Your task to perform on an android device: Open Wikipedia Image 0: 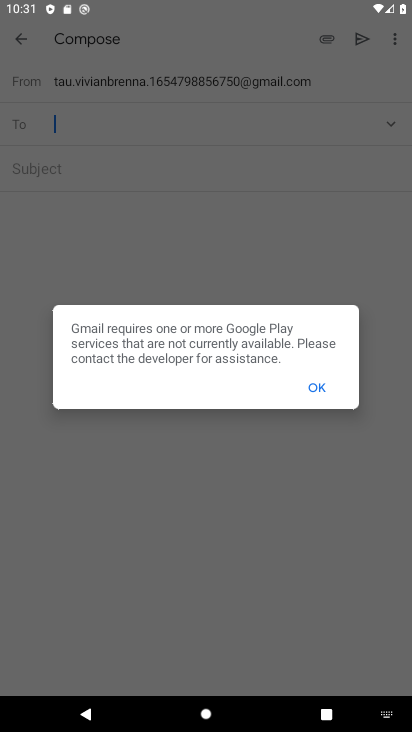
Step 0: press home button
Your task to perform on an android device: Open Wikipedia Image 1: 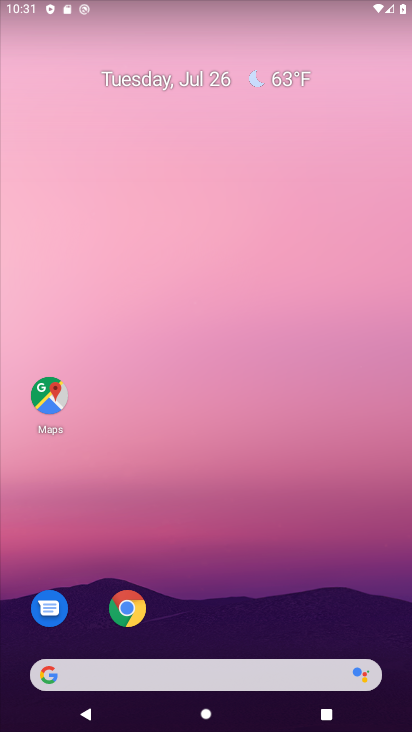
Step 1: click (54, 680)
Your task to perform on an android device: Open Wikipedia Image 2: 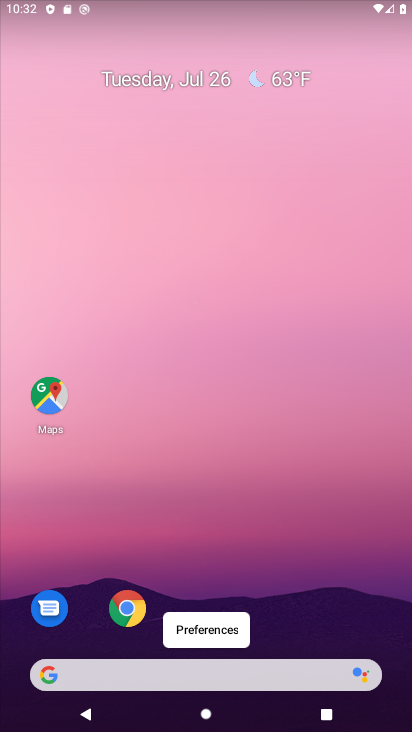
Step 2: click (53, 669)
Your task to perform on an android device: Open Wikipedia Image 3: 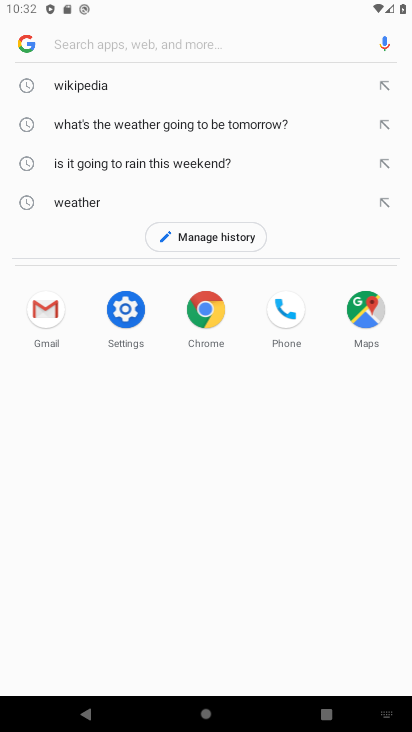
Step 3: click (84, 85)
Your task to perform on an android device: Open Wikipedia Image 4: 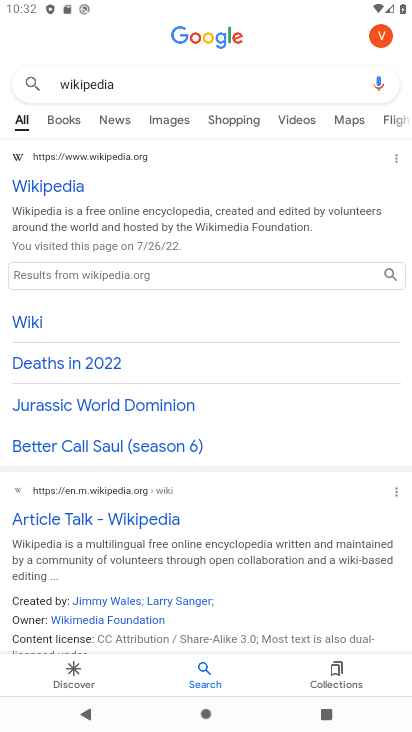
Step 4: click (48, 184)
Your task to perform on an android device: Open Wikipedia Image 5: 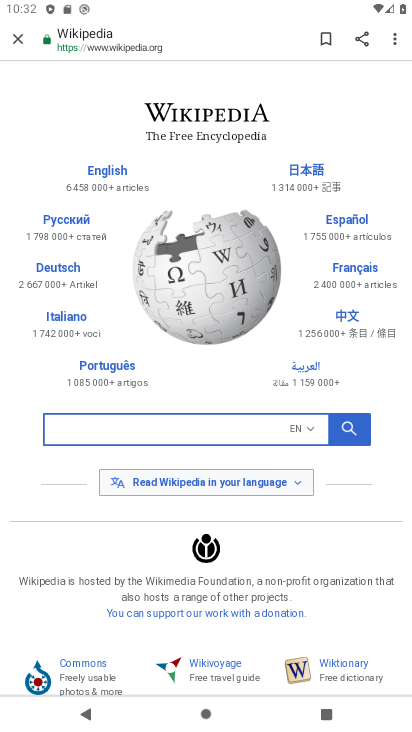
Step 5: task complete